Your task to perform on an android device: Go to calendar. Show me events next week Image 0: 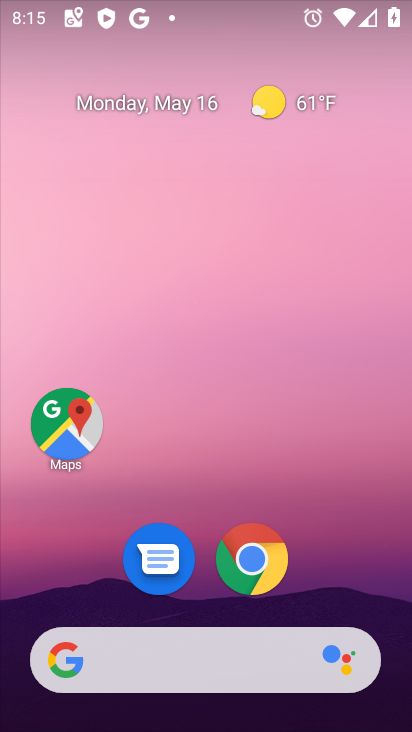
Step 0: drag from (363, 544) to (362, 56)
Your task to perform on an android device: Go to calendar. Show me events next week Image 1: 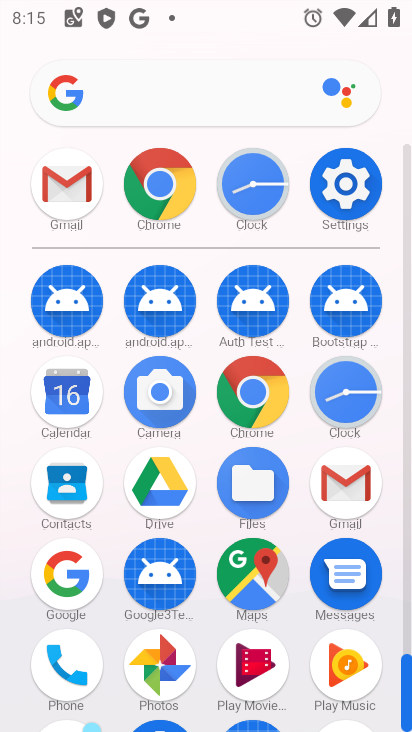
Step 1: click (85, 402)
Your task to perform on an android device: Go to calendar. Show me events next week Image 2: 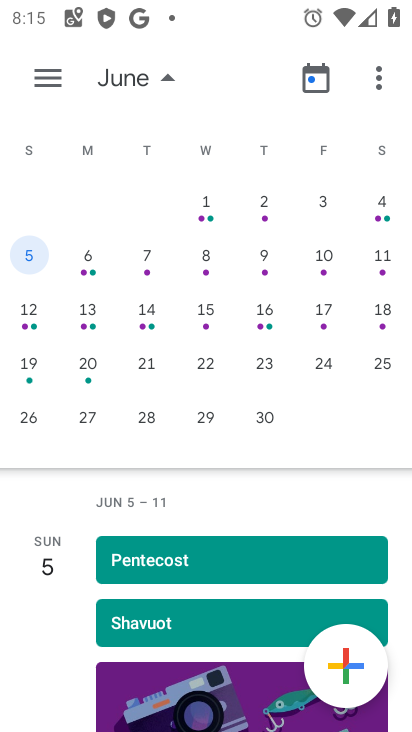
Step 2: drag from (103, 214) to (381, 266)
Your task to perform on an android device: Go to calendar. Show me events next week Image 3: 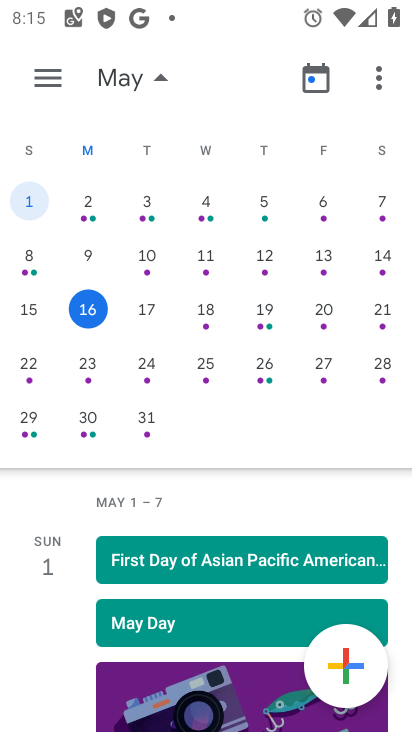
Step 3: click (25, 367)
Your task to perform on an android device: Go to calendar. Show me events next week Image 4: 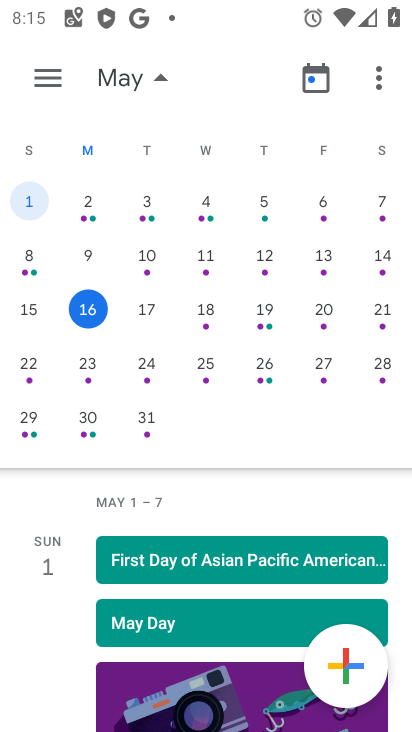
Step 4: click (34, 367)
Your task to perform on an android device: Go to calendar. Show me events next week Image 5: 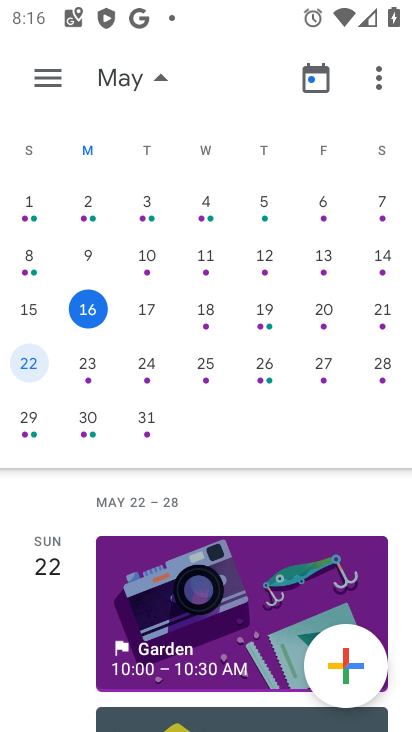
Step 5: task complete